Your task to perform on an android device: Open location settings Image 0: 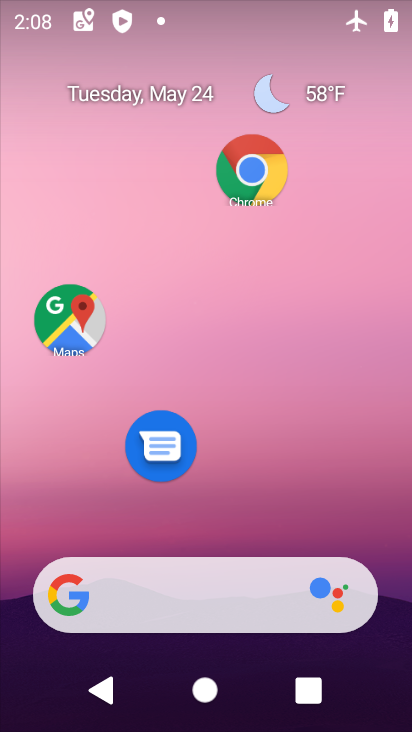
Step 0: drag from (244, 500) to (299, 0)
Your task to perform on an android device: Open location settings Image 1: 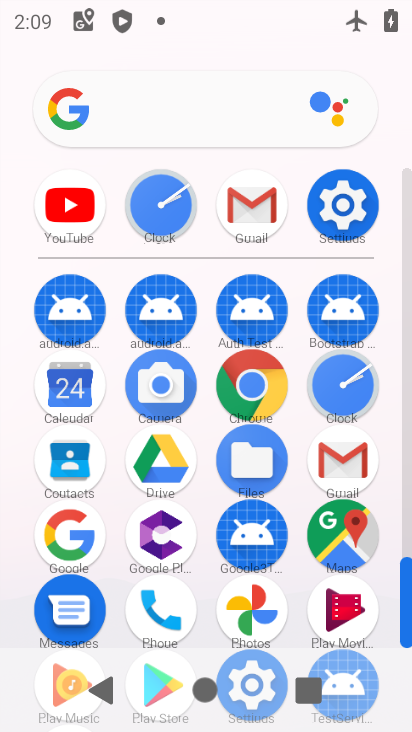
Step 1: click (357, 225)
Your task to perform on an android device: Open location settings Image 2: 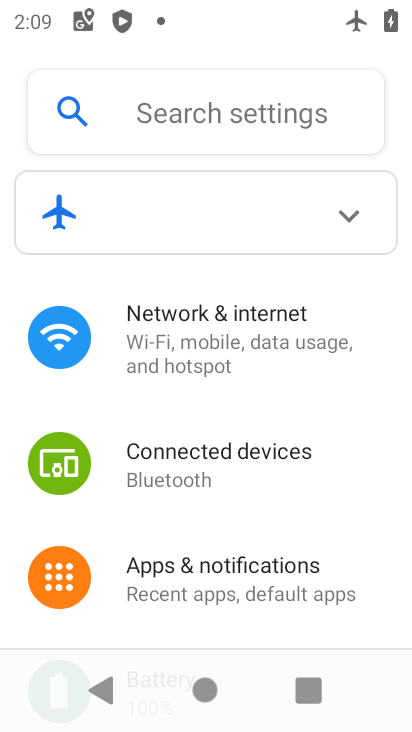
Step 2: drag from (226, 527) to (284, 68)
Your task to perform on an android device: Open location settings Image 3: 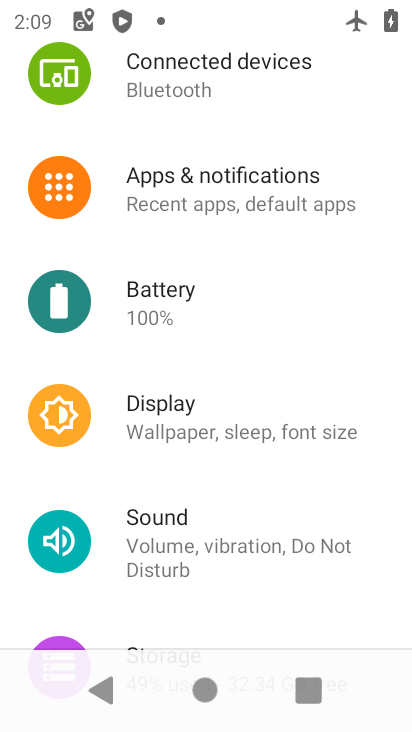
Step 3: drag from (261, 433) to (328, 30)
Your task to perform on an android device: Open location settings Image 4: 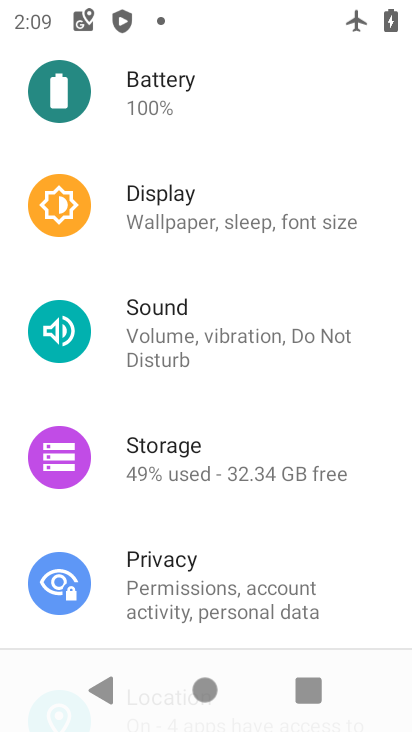
Step 4: drag from (180, 561) to (286, 0)
Your task to perform on an android device: Open location settings Image 5: 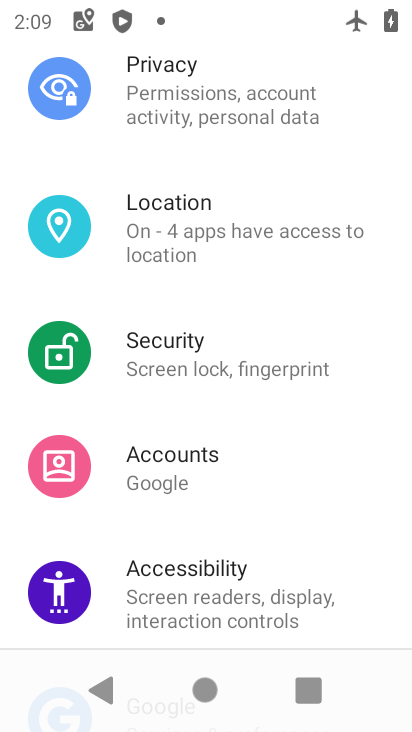
Step 5: click (251, 230)
Your task to perform on an android device: Open location settings Image 6: 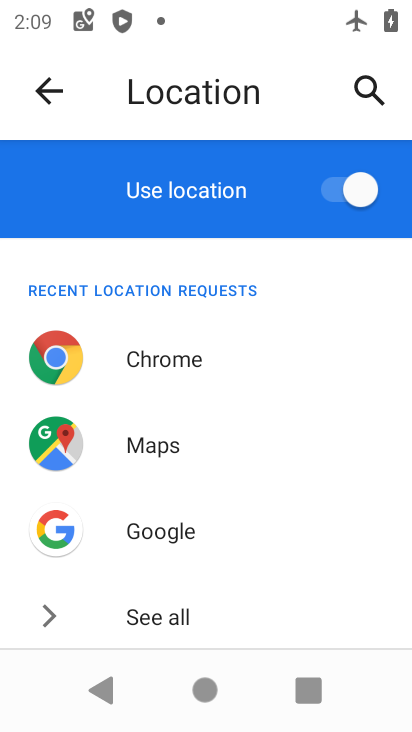
Step 6: task complete